Your task to perform on an android device: turn off location history Image 0: 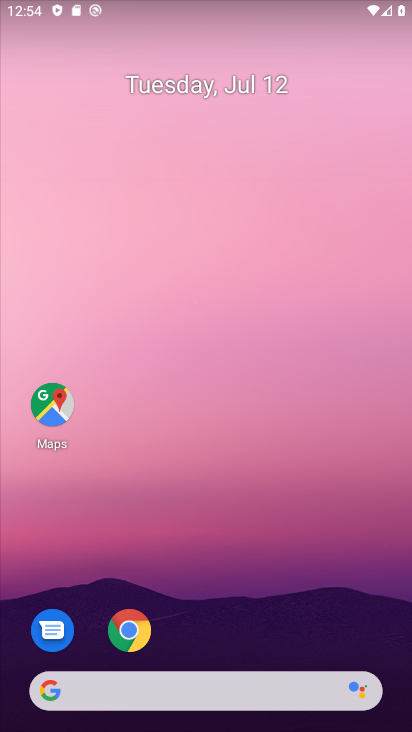
Step 0: press home button
Your task to perform on an android device: turn off location history Image 1: 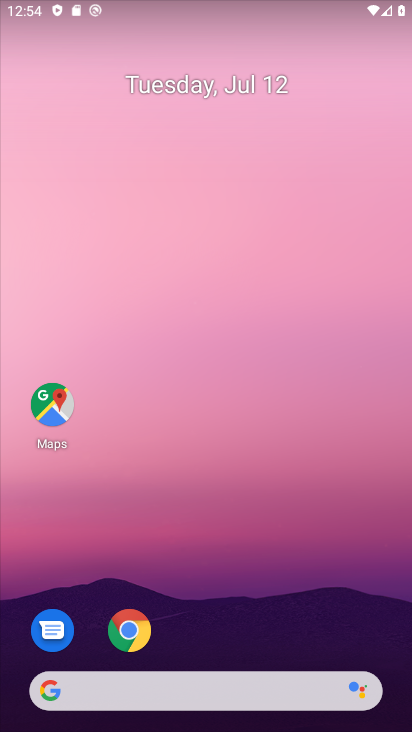
Step 1: click (53, 402)
Your task to perform on an android device: turn off location history Image 2: 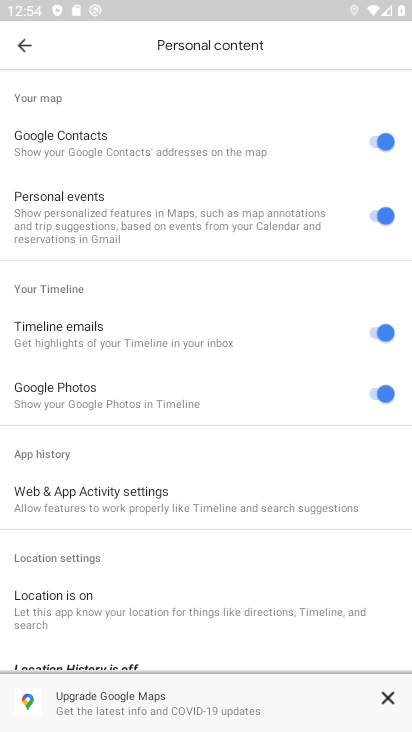
Step 2: task complete